Your task to perform on an android device: turn off wifi Image 0: 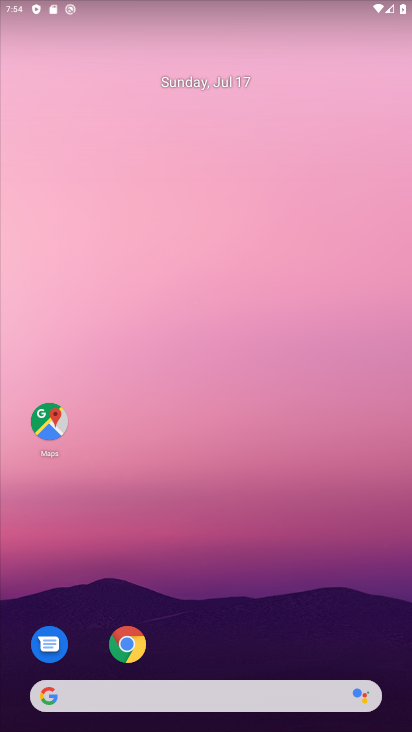
Step 0: drag from (360, 655) to (314, 125)
Your task to perform on an android device: turn off wifi Image 1: 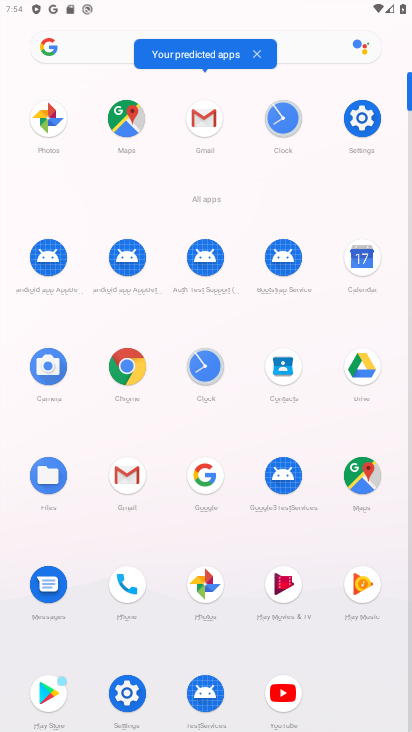
Step 1: click (119, 700)
Your task to perform on an android device: turn off wifi Image 2: 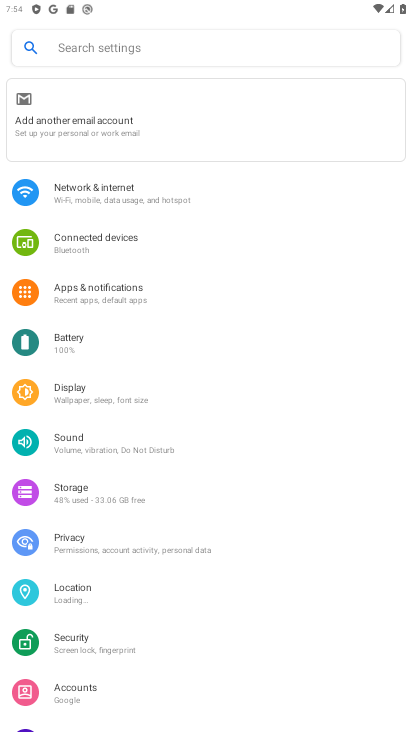
Step 2: click (136, 213)
Your task to perform on an android device: turn off wifi Image 3: 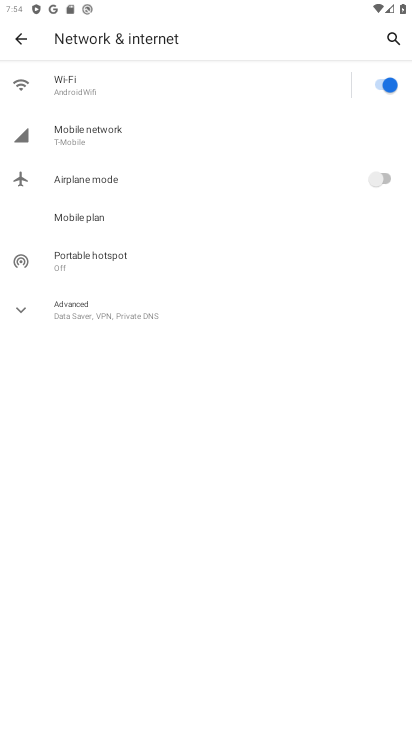
Step 3: click (393, 79)
Your task to perform on an android device: turn off wifi Image 4: 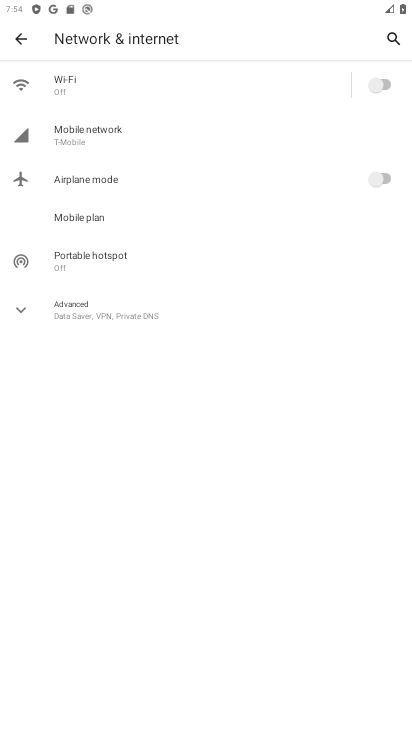
Step 4: task complete